Your task to perform on an android device: Open the phone app and click the voicemail tab. Image 0: 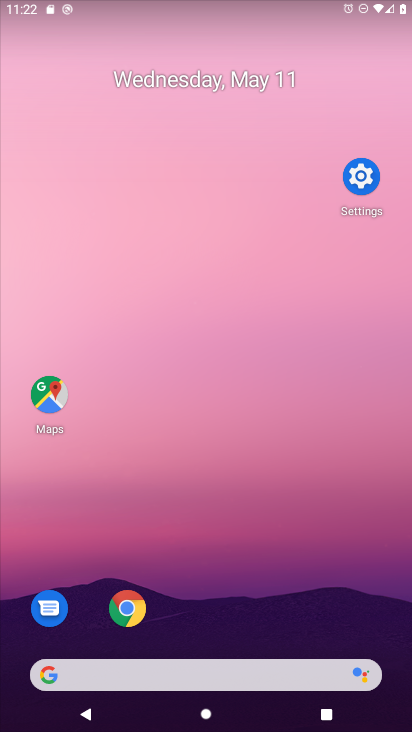
Step 0: drag from (343, 633) to (166, 123)
Your task to perform on an android device: Open the phone app and click the voicemail tab. Image 1: 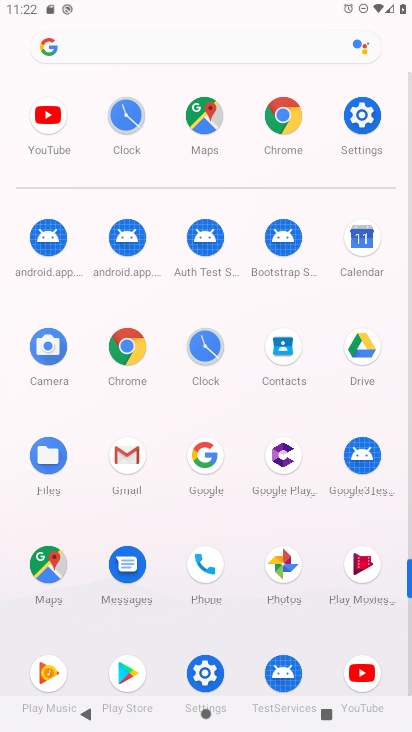
Step 1: click (201, 564)
Your task to perform on an android device: Open the phone app and click the voicemail tab. Image 2: 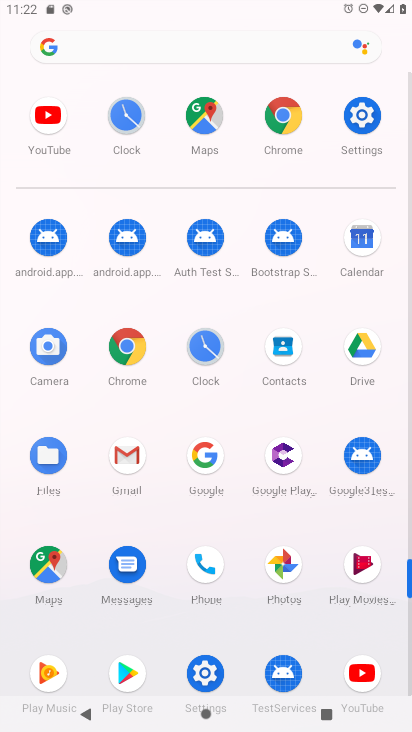
Step 2: click (201, 564)
Your task to perform on an android device: Open the phone app and click the voicemail tab. Image 3: 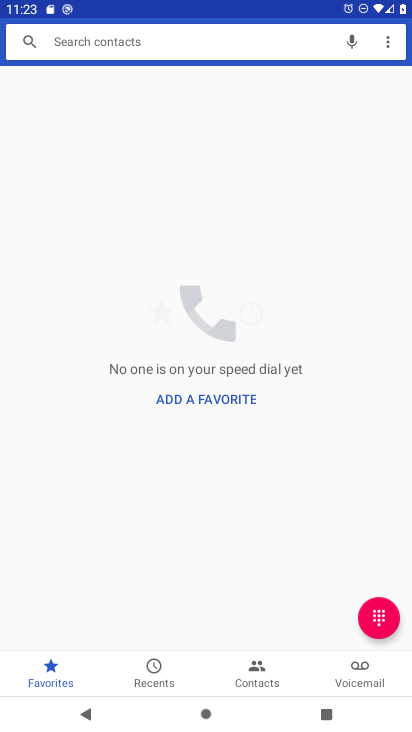
Step 3: click (364, 668)
Your task to perform on an android device: Open the phone app and click the voicemail tab. Image 4: 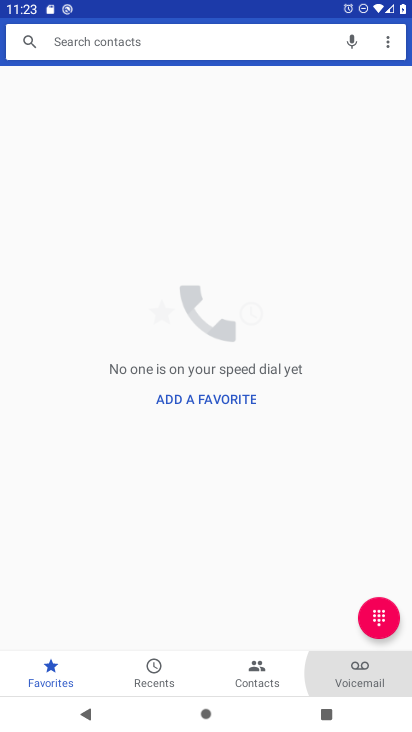
Step 4: click (360, 664)
Your task to perform on an android device: Open the phone app and click the voicemail tab. Image 5: 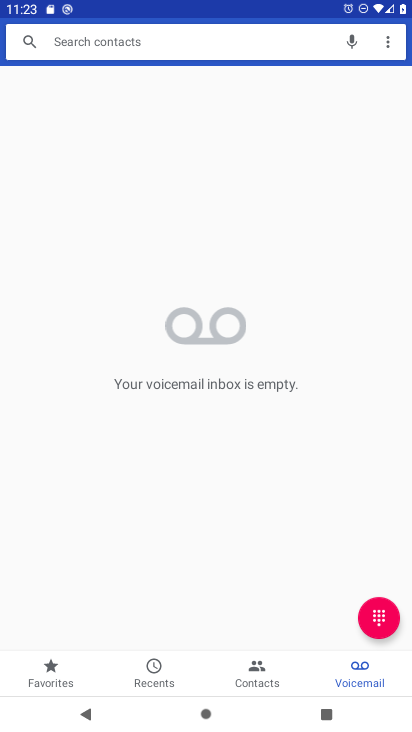
Step 5: task complete